Your task to perform on an android device: Open CNN.com Image 0: 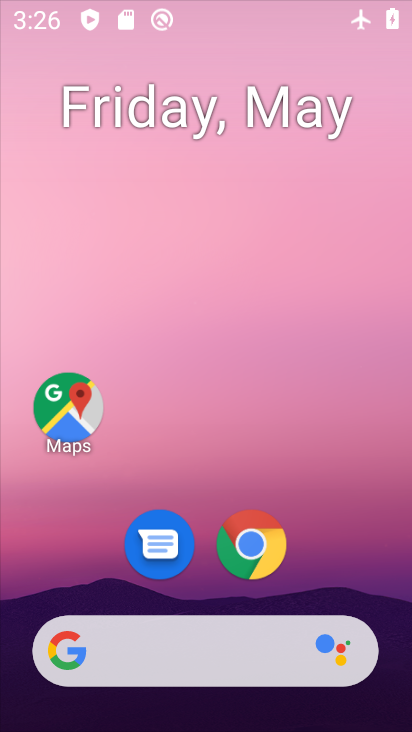
Step 0: drag from (303, 707) to (131, 138)
Your task to perform on an android device: Open CNN.com Image 1: 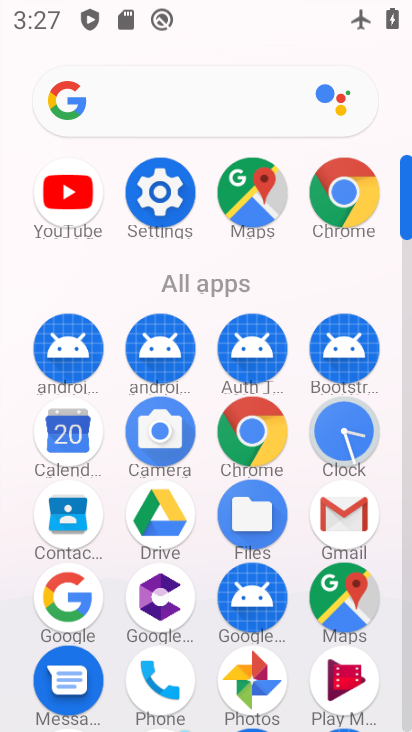
Step 1: click (326, 182)
Your task to perform on an android device: Open CNN.com Image 2: 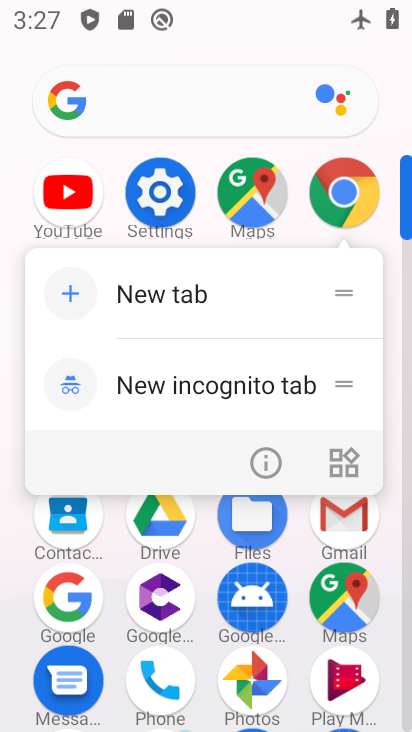
Step 2: click (341, 179)
Your task to perform on an android device: Open CNN.com Image 3: 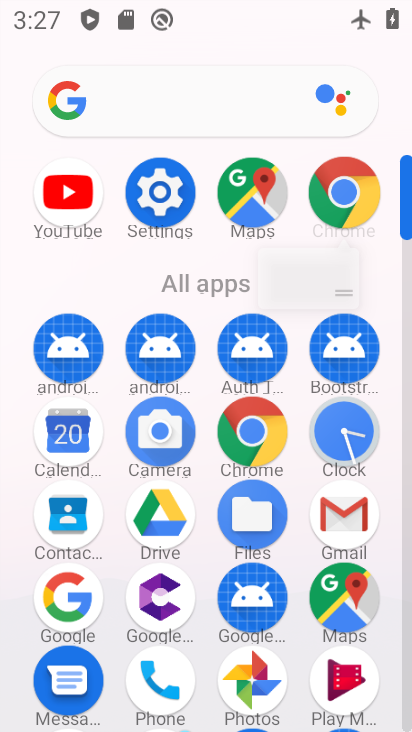
Step 3: click (341, 179)
Your task to perform on an android device: Open CNN.com Image 4: 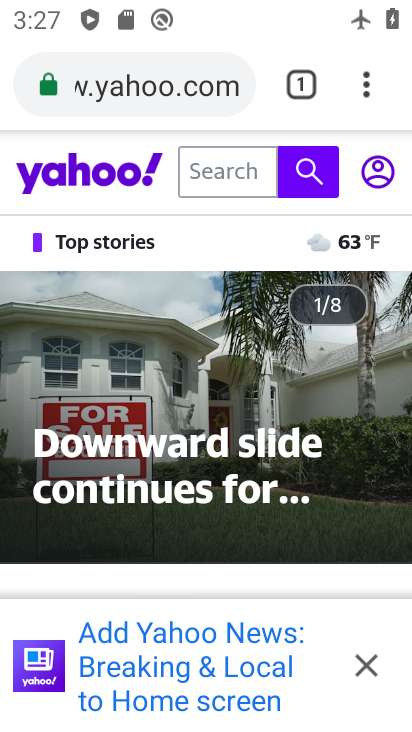
Step 4: click (374, 672)
Your task to perform on an android device: Open CNN.com Image 5: 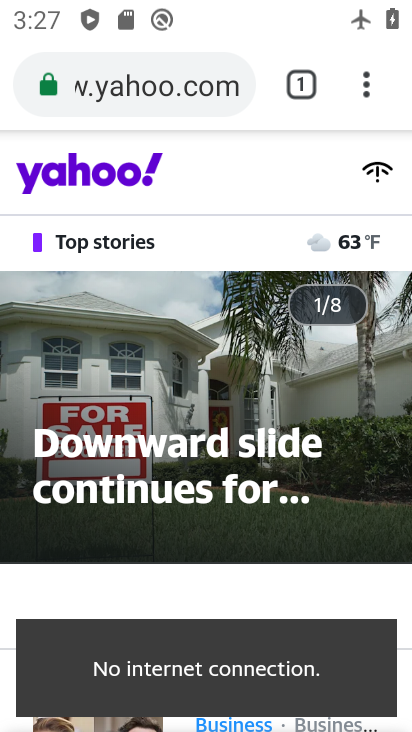
Step 5: press back button
Your task to perform on an android device: Open CNN.com Image 6: 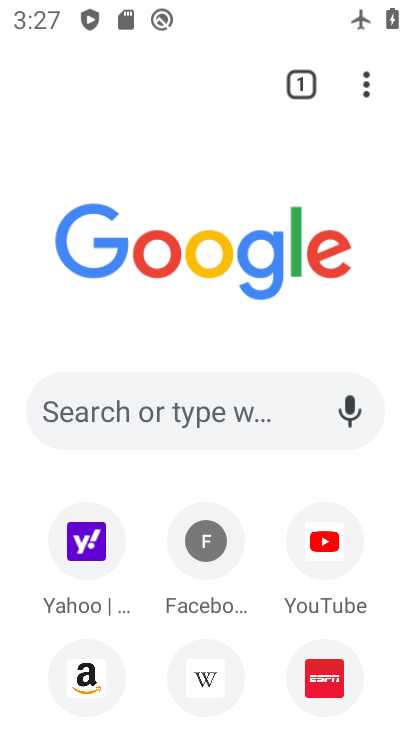
Step 6: click (139, 401)
Your task to perform on an android device: Open CNN.com Image 7: 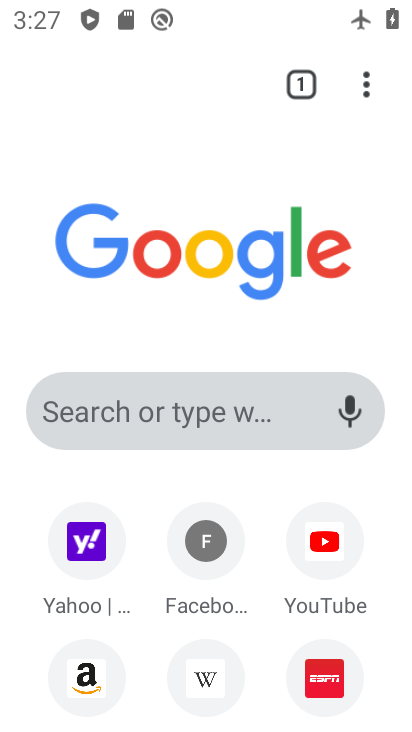
Step 7: click (138, 403)
Your task to perform on an android device: Open CNN.com Image 8: 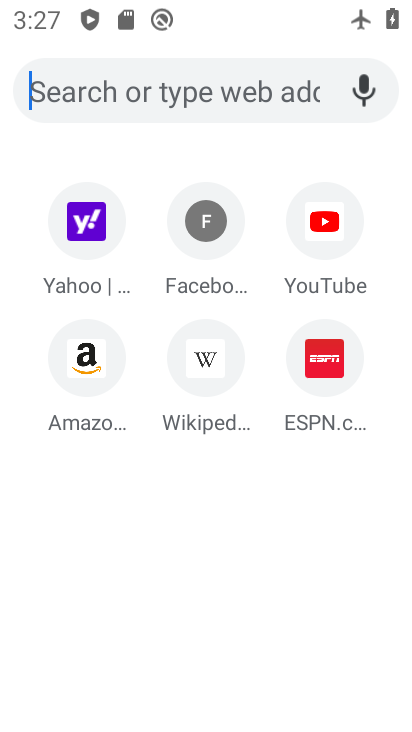
Step 8: click (139, 404)
Your task to perform on an android device: Open CNN.com Image 9: 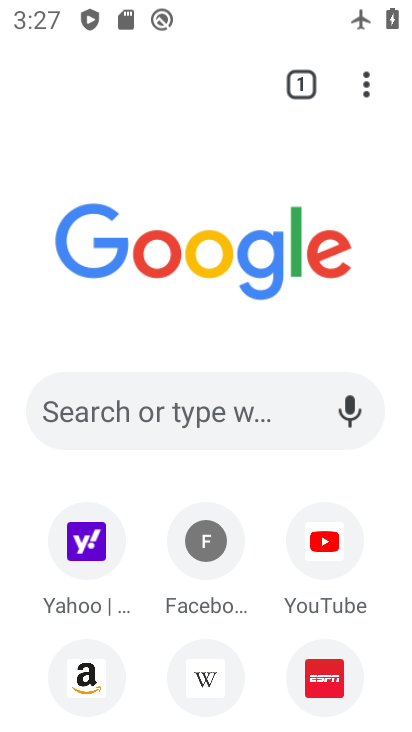
Step 9: click (105, 405)
Your task to perform on an android device: Open CNN.com Image 10: 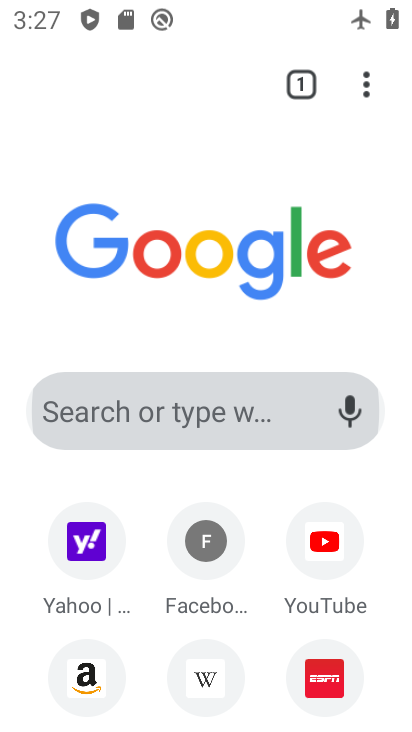
Step 10: click (104, 407)
Your task to perform on an android device: Open CNN.com Image 11: 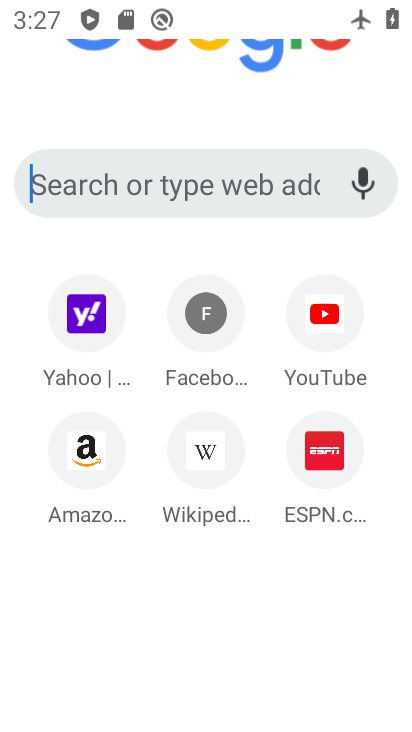
Step 11: click (106, 408)
Your task to perform on an android device: Open CNN.com Image 12: 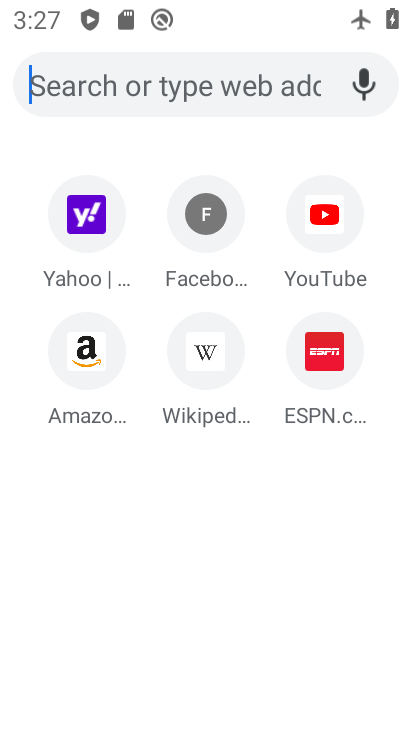
Step 12: click (117, 400)
Your task to perform on an android device: Open CNN.com Image 13: 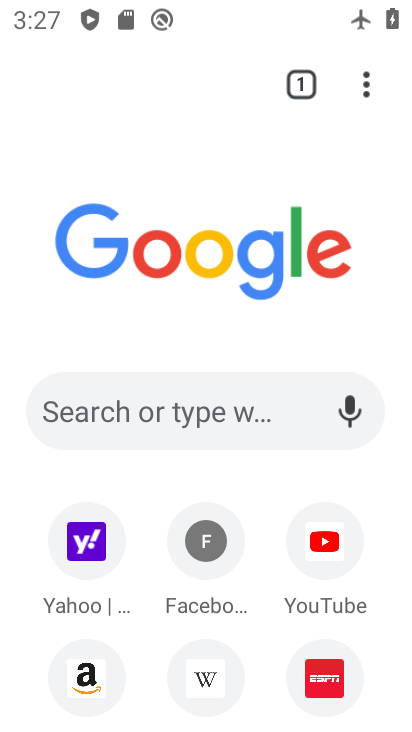
Step 13: click (66, 412)
Your task to perform on an android device: Open CNN.com Image 14: 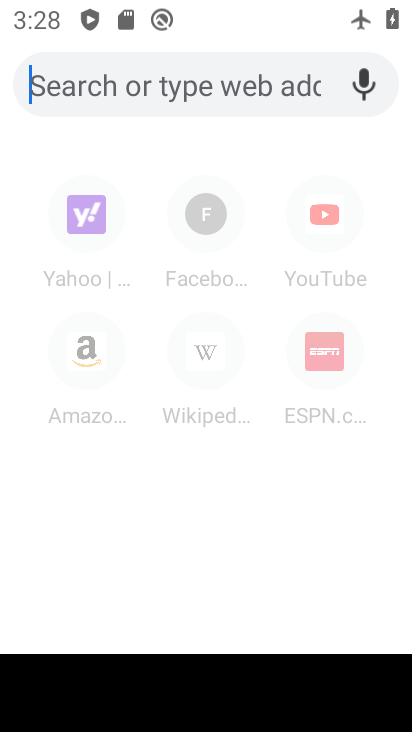
Step 14: type "cnn.com"
Your task to perform on an android device: Open CNN.com Image 15: 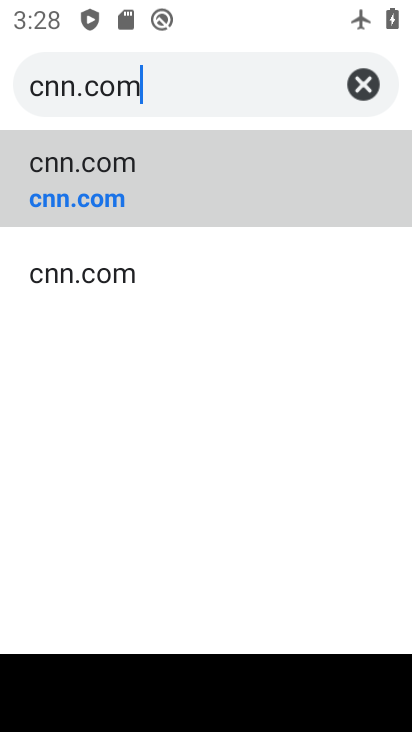
Step 15: click (69, 219)
Your task to perform on an android device: Open CNN.com Image 16: 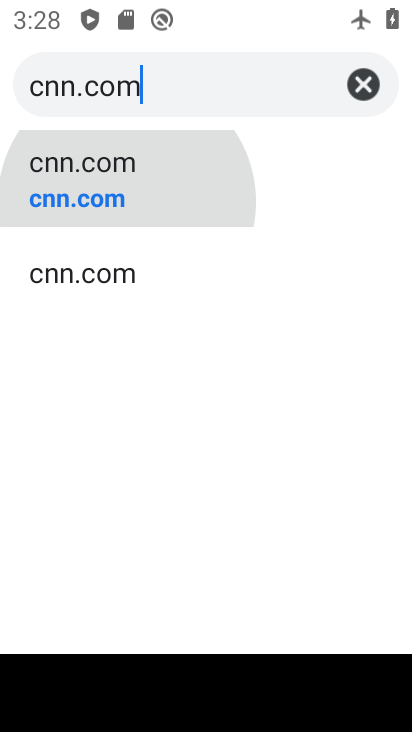
Step 16: click (89, 215)
Your task to perform on an android device: Open CNN.com Image 17: 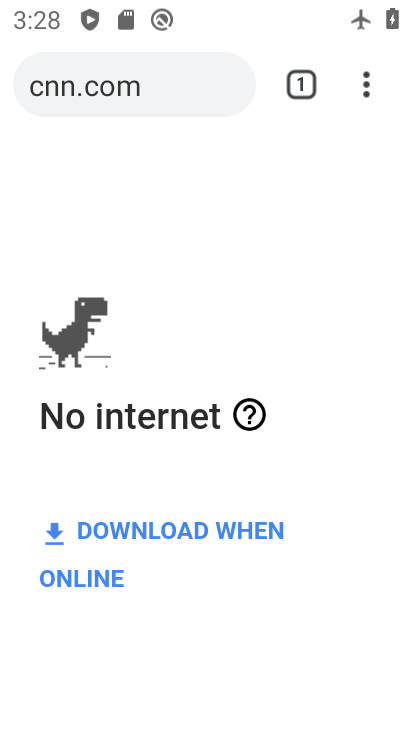
Step 17: task complete